Your task to perform on an android device: change the upload size in google photos Image 0: 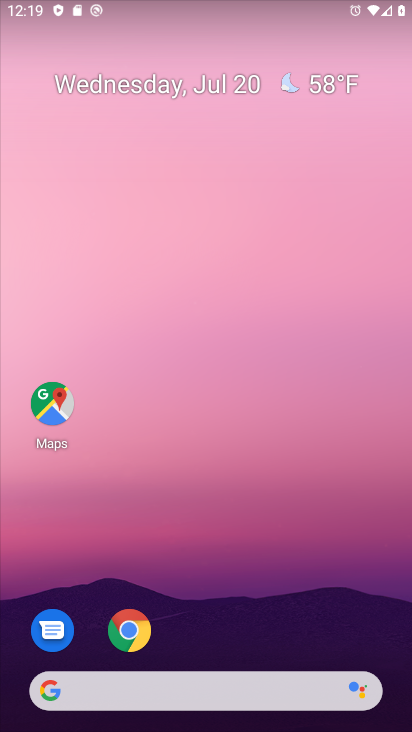
Step 0: drag from (219, 696) to (380, 121)
Your task to perform on an android device: change the upload size in google photos Image 1: 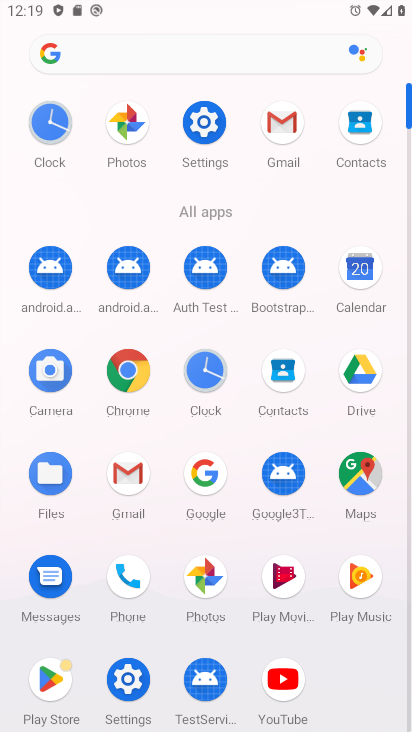
Step 1: click (212, 583)
Your task to perform on an android device: change the upload size in google photos Image 2: 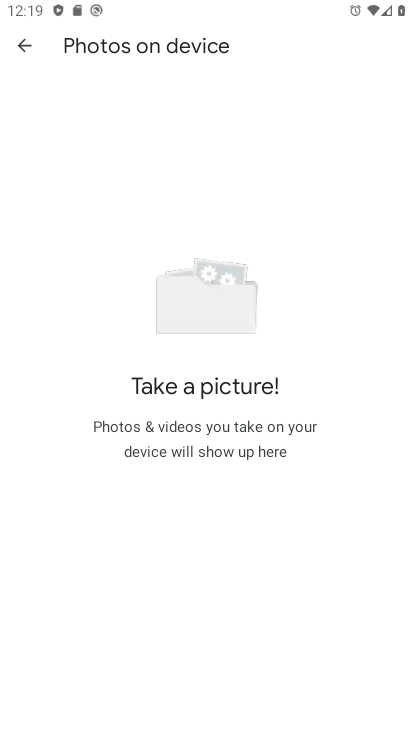
Step 2: click (24, 36)
Your task to perform on an android device: change the upload size in google photos Image 3: 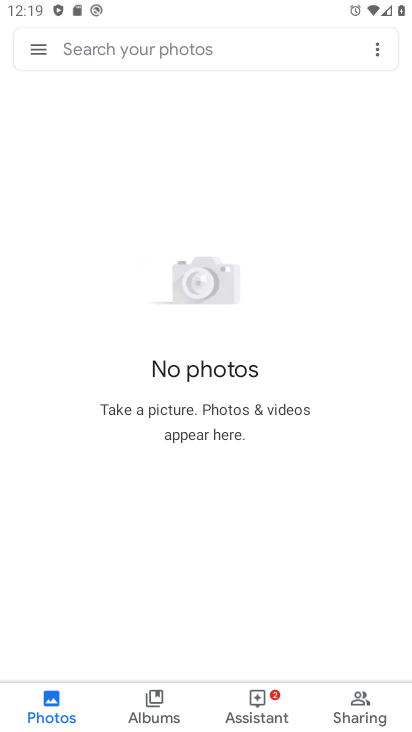
Step 3: click (40, 47)
Your task to perform on an android device: change the upload size in google photos Image 4: 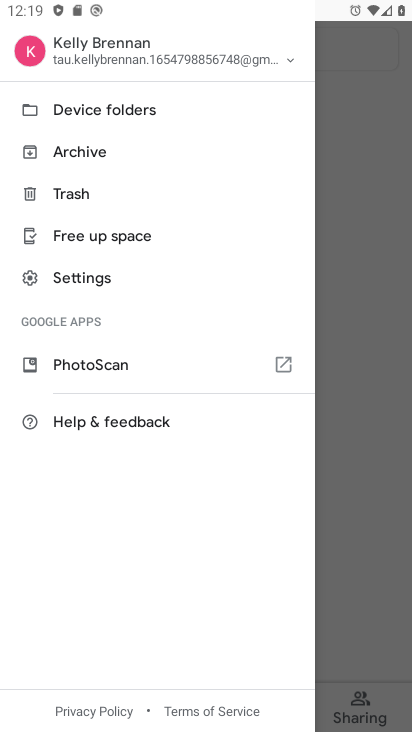
Step 4: click (98, 282)
Your task to perform on an android device: change the upload size in google photos Image 5: 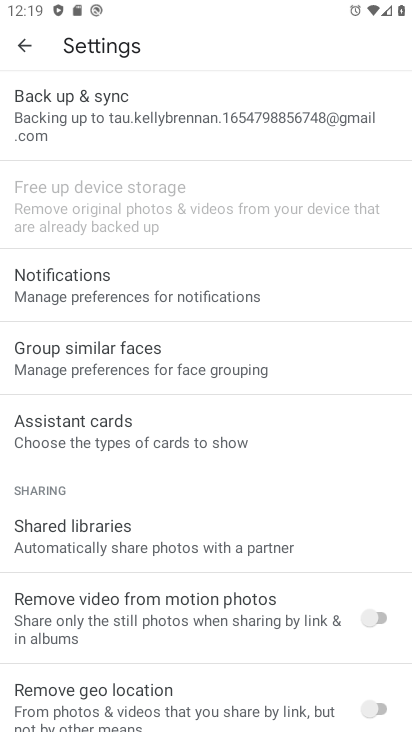
Step 5: click (134, 135)
Your task to perform on an android device: change the upload size in google photos Image 6: 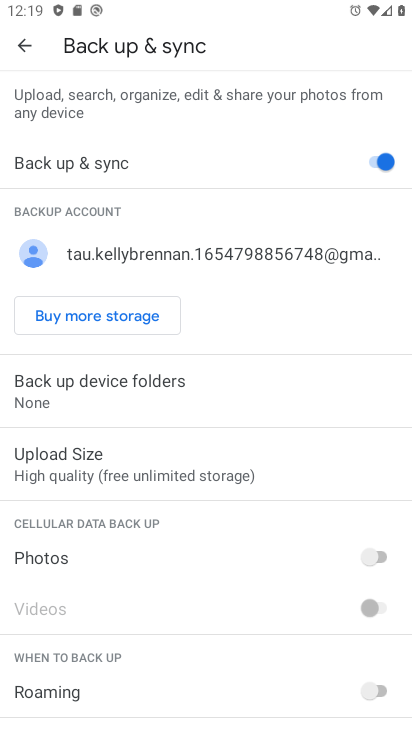
Step 6: click (121, 450)
Your task to perform on an android device: change the upload size in google photos Image 7: 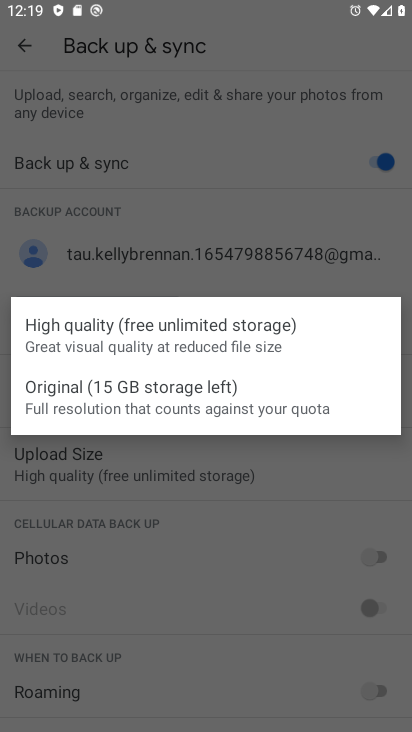
Step 7: click (63, 380)
Your task to perform on an android device: change the upload size in google photos Image 8: 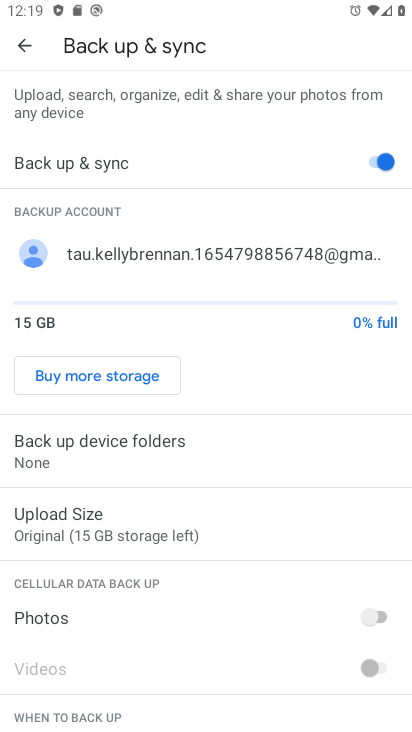
Step 8: task complete